Your task to perform on an android device: toggle sleep mode Image 0: 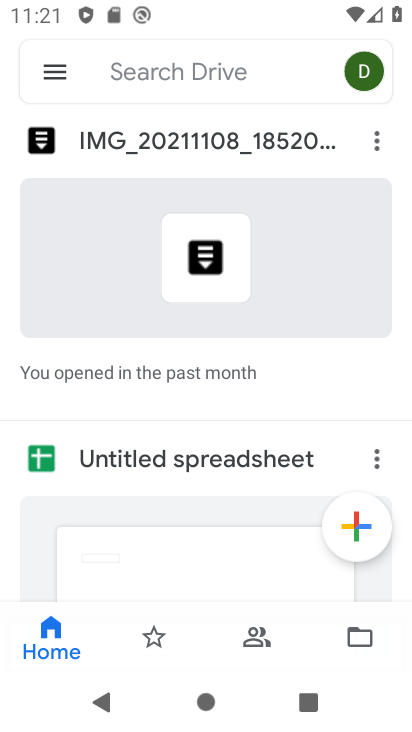
Step 0: click (197, 693)
Your task to perform on an android device: toggle sleep mode Image 1: 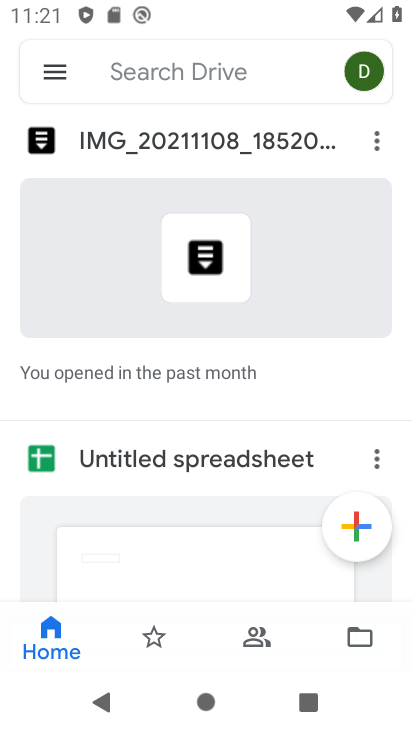
Step 1: click (197, 693)
Your task to perform on an android device: toggle sleep mode Image 2: 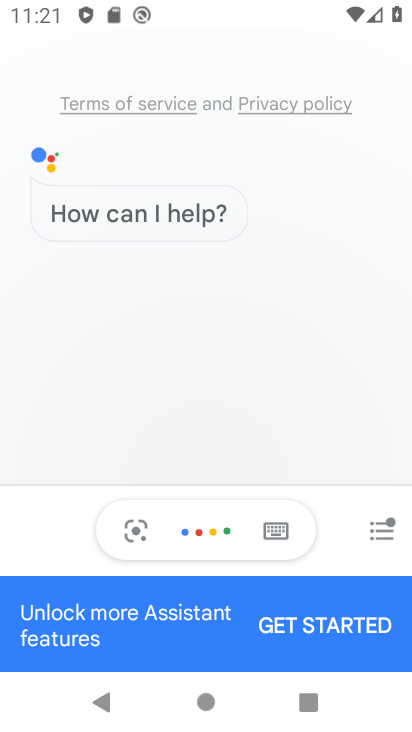
Step 2: press home button
Your task to perform on an android device: toggle sleep mode Image 3: 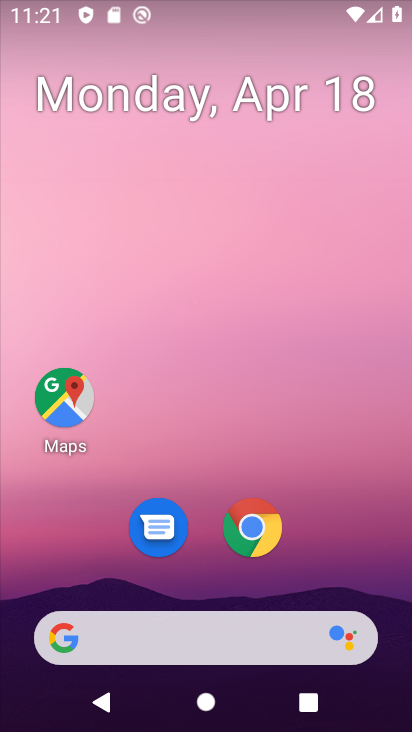
Step 3: drag from (238, 607) to (368, 96)
Your task to perform on an android device: toggle sleep mode Image 4: 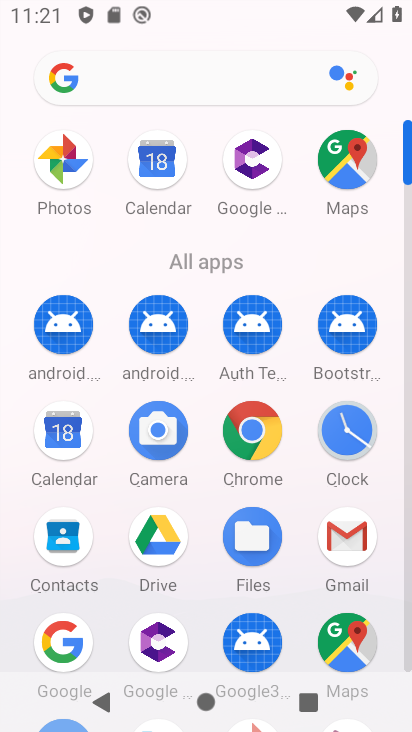
Step 4: drag from (222, 573) to (282, 205)
Your task to perform on an android device: toggle sleep mode Image 5: 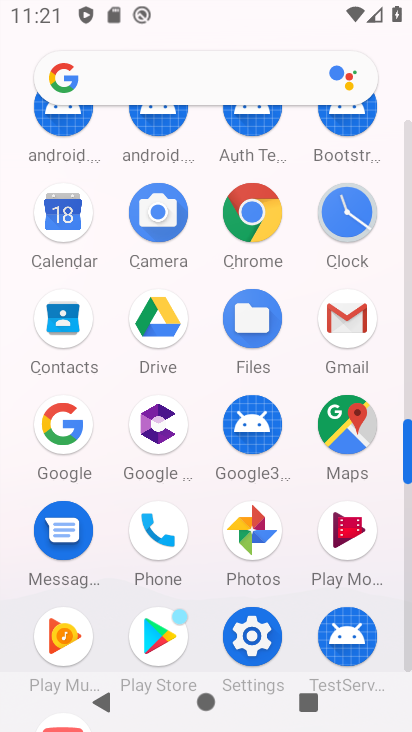
Step 5: click (266, 636)
Your task to perform on an android device: toggle sleep mode Image 6: 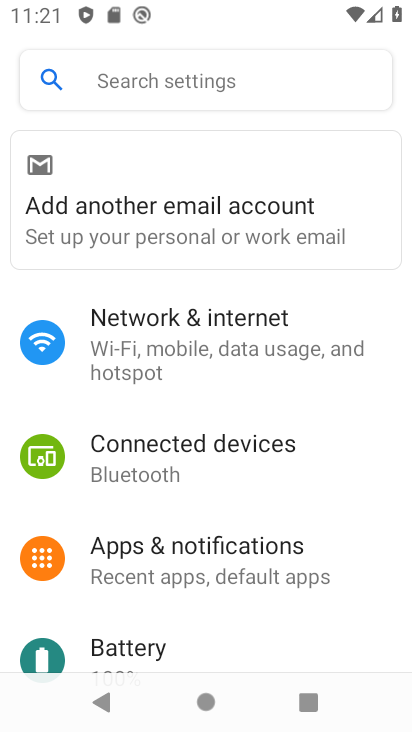
Step 6: drag from (266, 636) to (348, 315)
Your task to perform on an android device: toggle sleep mode Image 7: 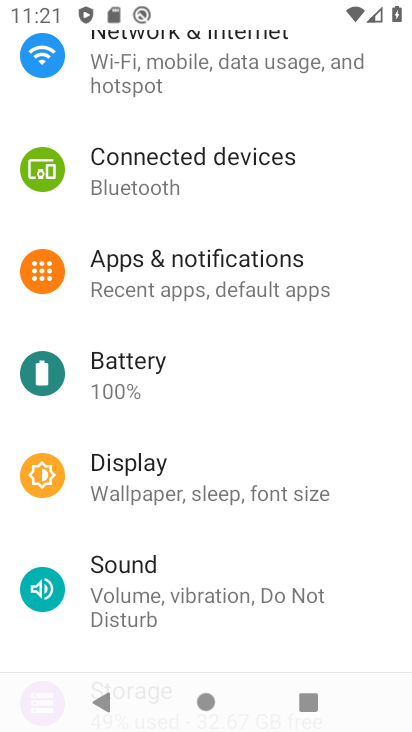
Step 7: click (229, 487)
Your task to perform on an android device: toggle sleep mode Image 8: 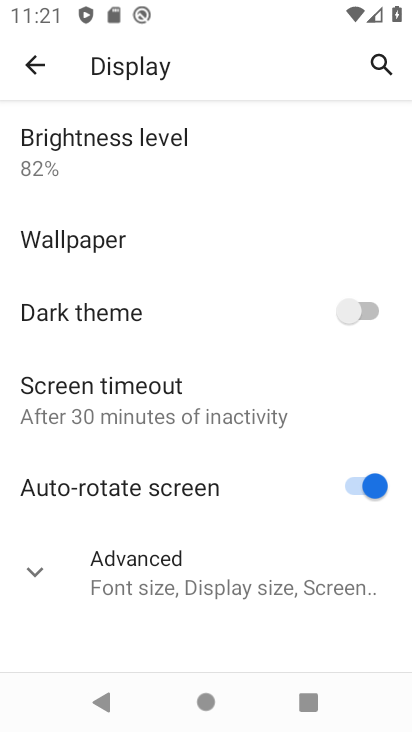
Step 8: click (132, 559)
Your task to perform on an android device: toggle sleep mode Image 9: 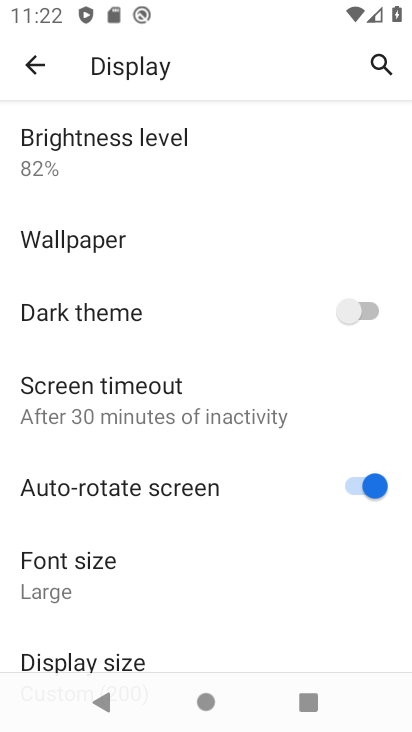
Step 9: task complete